Your task to perform on an android device: Clear the shopping cart on walmart.com. Add panasonic triple a to the cart on walmart.com Image 0: 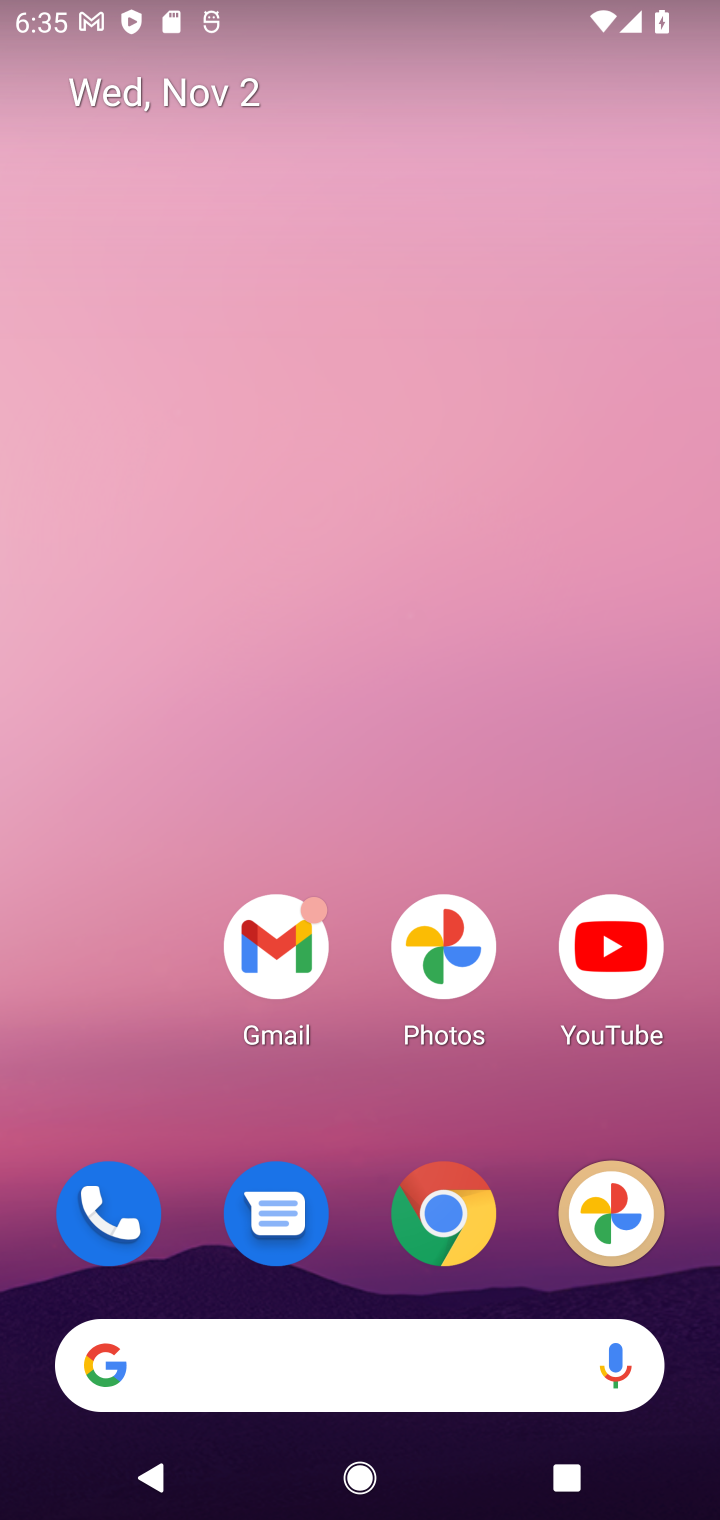
Step 0: click (440, 1213)
Your task to perform on an android device: Clear the shopping cart on walmart.com. Add panasonic triple a to the cart on walmart.com Image 1: 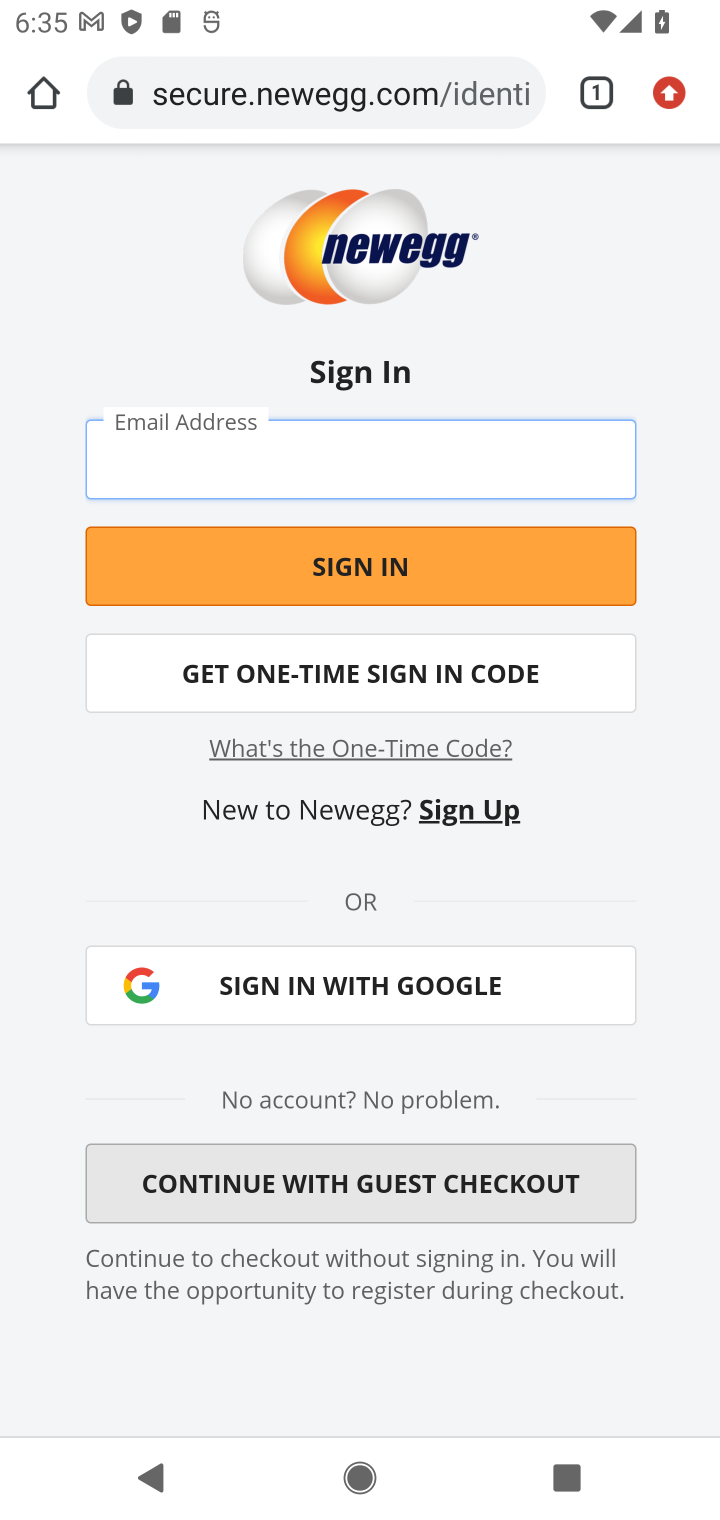
Step 1: click (386, 60)
Your task to perform on an android device: Clear the shopping cart on walmart.com. Add panasonic triple a to the cart on walmart.com Image 2: 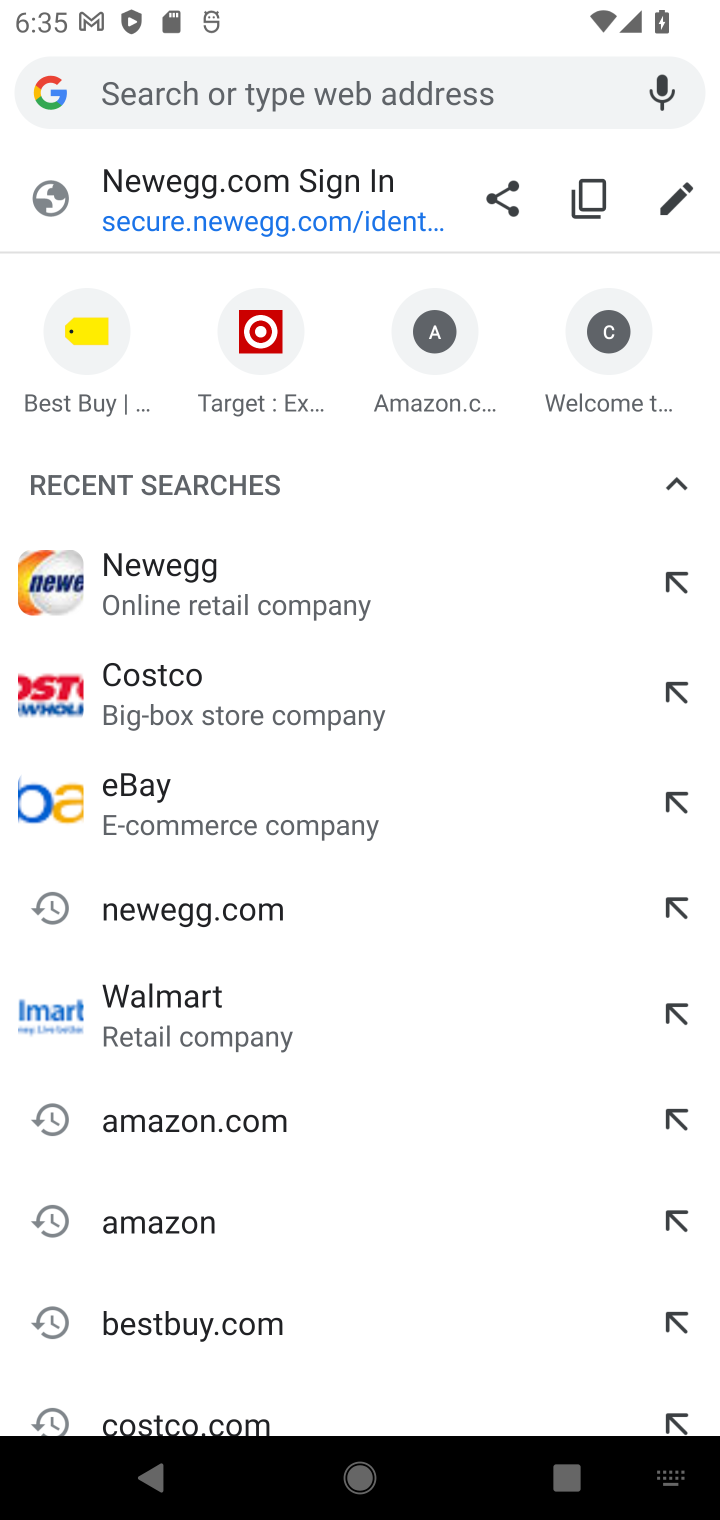
Step 2: type "walmart.com"
Your task to perform on an android device: Clear the shopping cart on walmart.com. Add panasonic triple a to the cart on walmart.com Image 3: 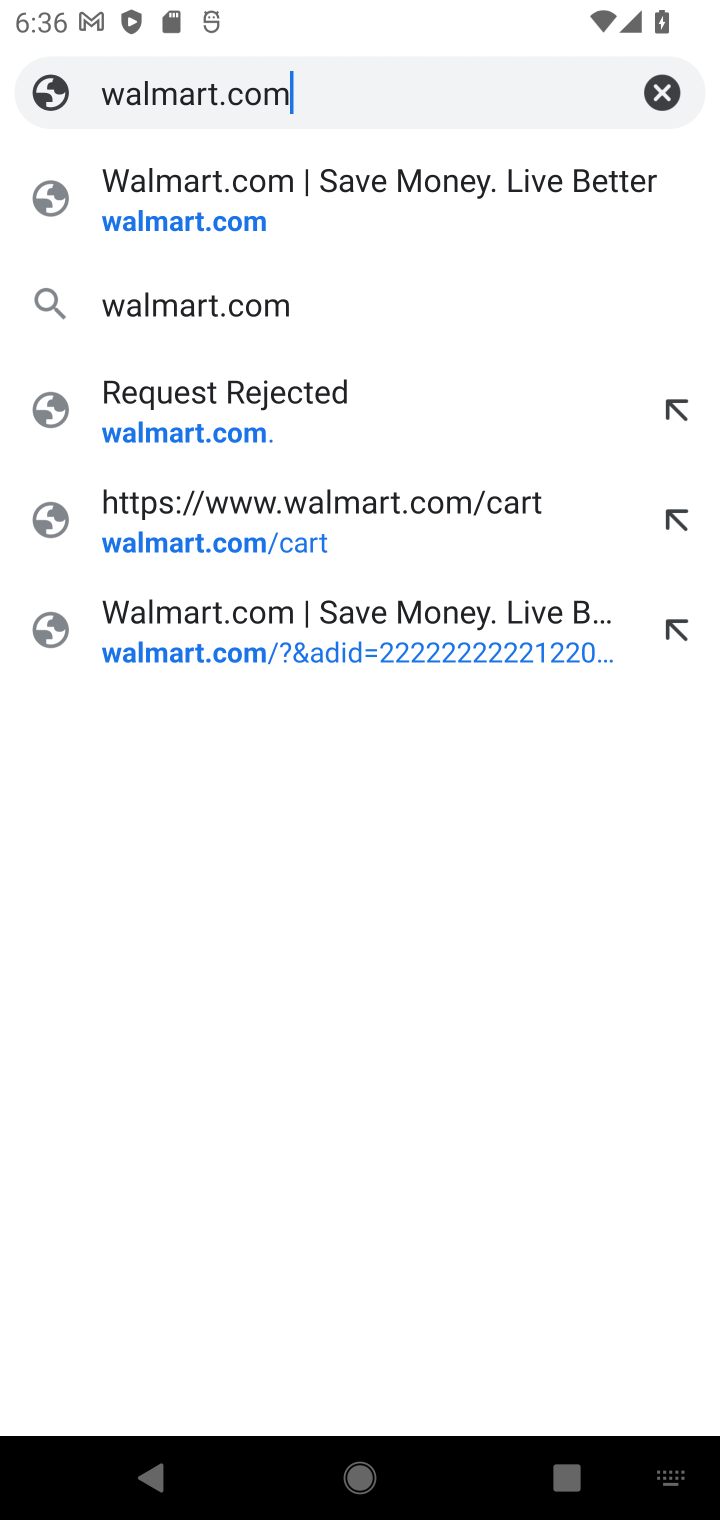
Step 3: click (166, 182)
Your task to perform on an android device: Clear the shopping cart on walmart.com. Add panasonic triple a to the cart on walmart.com Image 4: 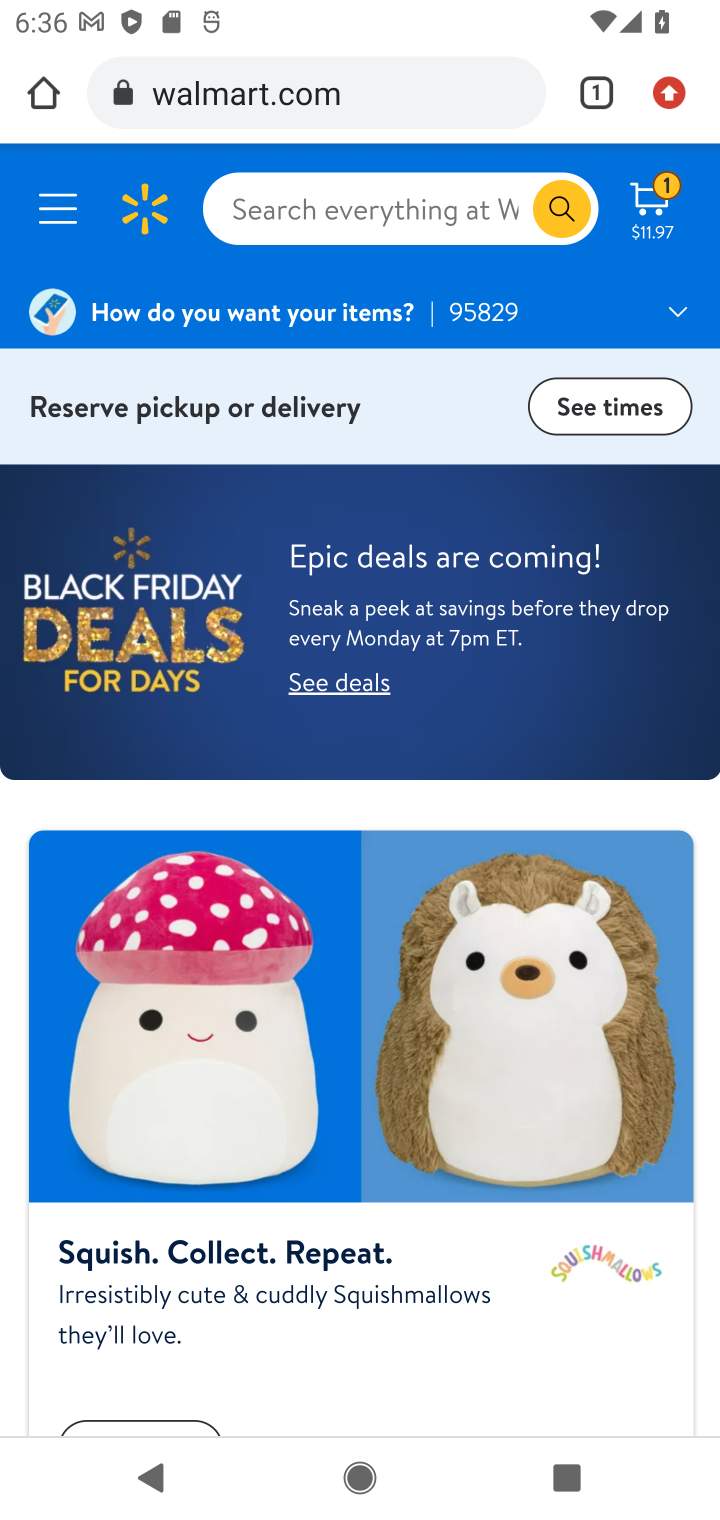
Step 4: click (651, 194)
Your task to perform on an android device: Clear the shopping cart on walmart.com. Add panasonic triple a to the cart on walmart.com Image 5: 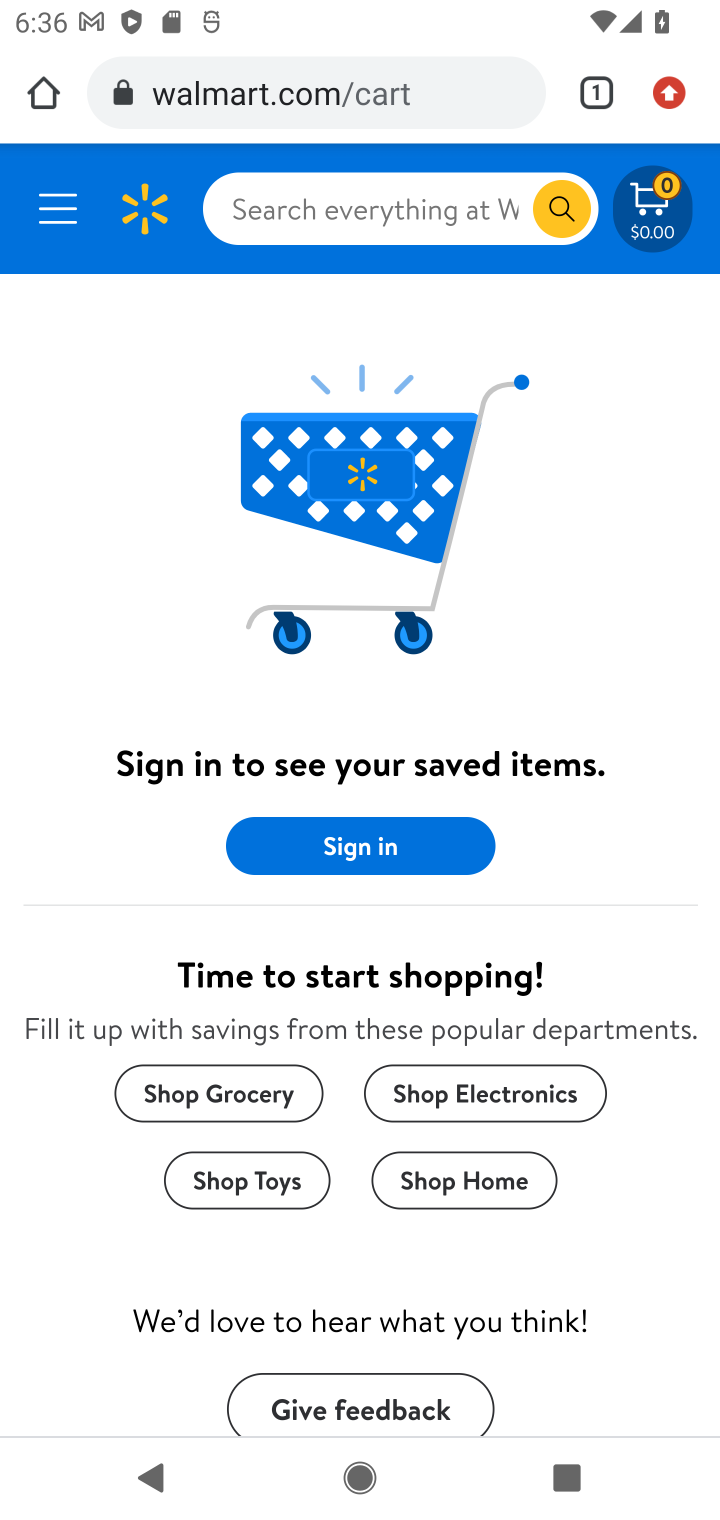
Step 5: click (298, 199)
Your task to perform on an android device: Clear the shopping cart on walmart.com. Add panasonic triple a to the cart on walmart.com Image 6: 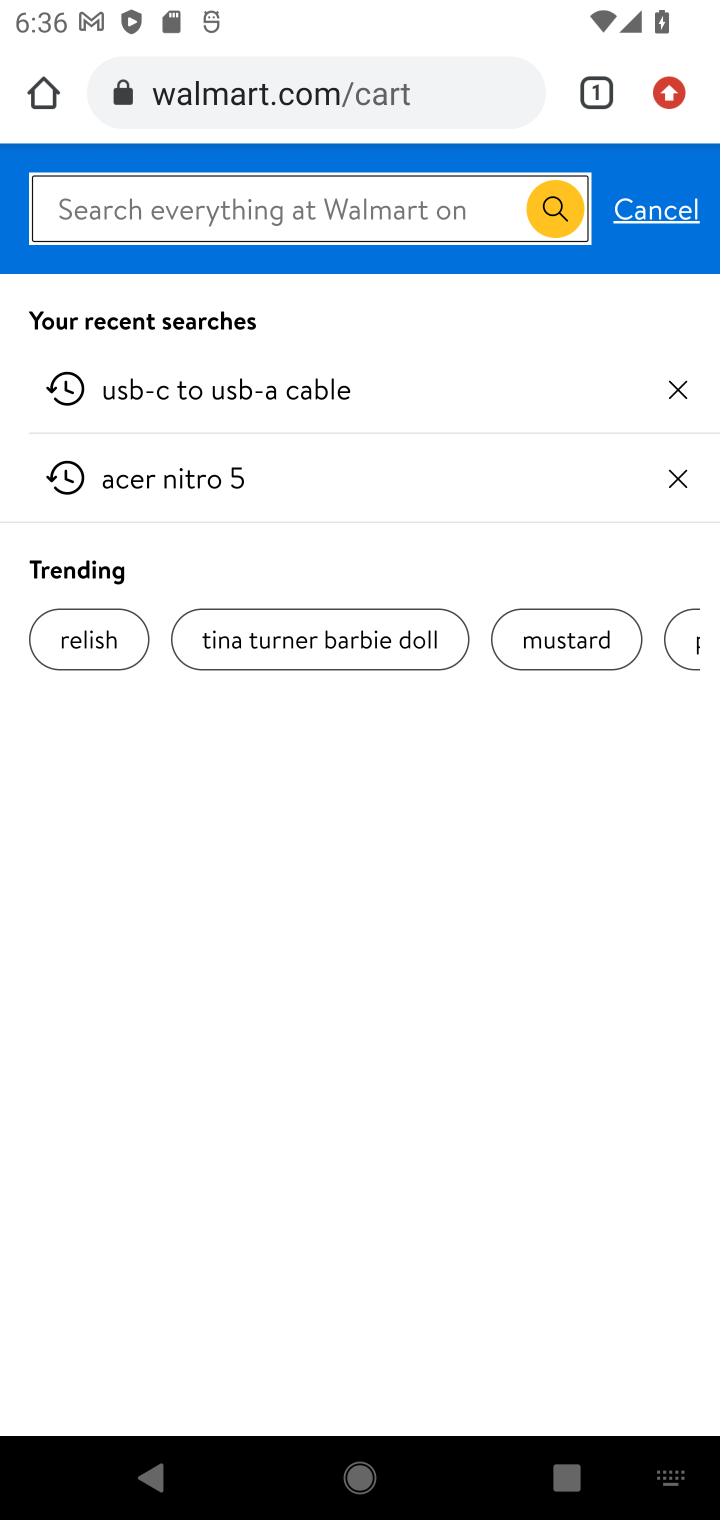
Step 6: type "panasonic triple a"
Your task to perform on an android device: Clear the shopping cart on walmart.com. Add panasonic triple a to the cart on walmart.com Image 7: 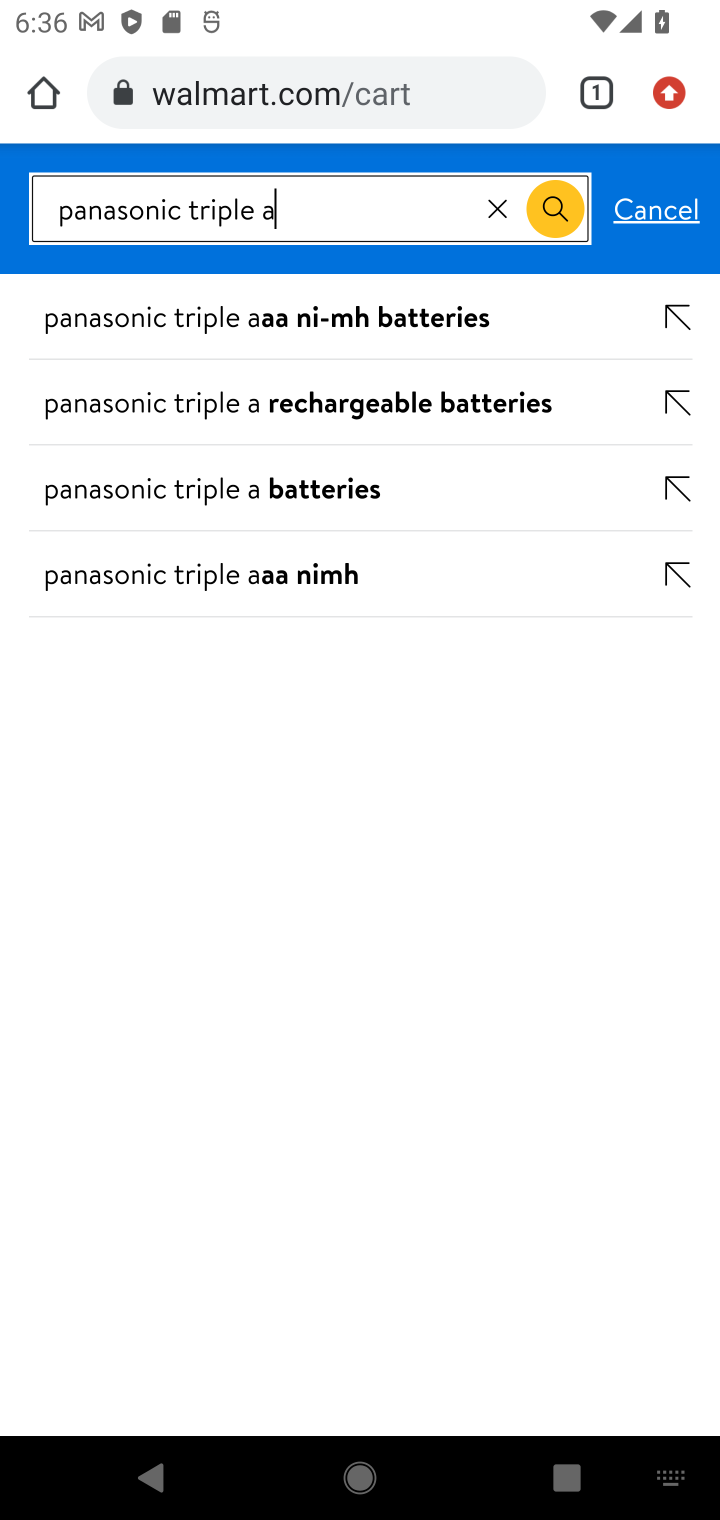
Step 7: click (113, 310)
Your task to perform on an android device: Clear the shopping cart on walmart.com. Add panasonic triple a to the cart on walmart.com Image 8: 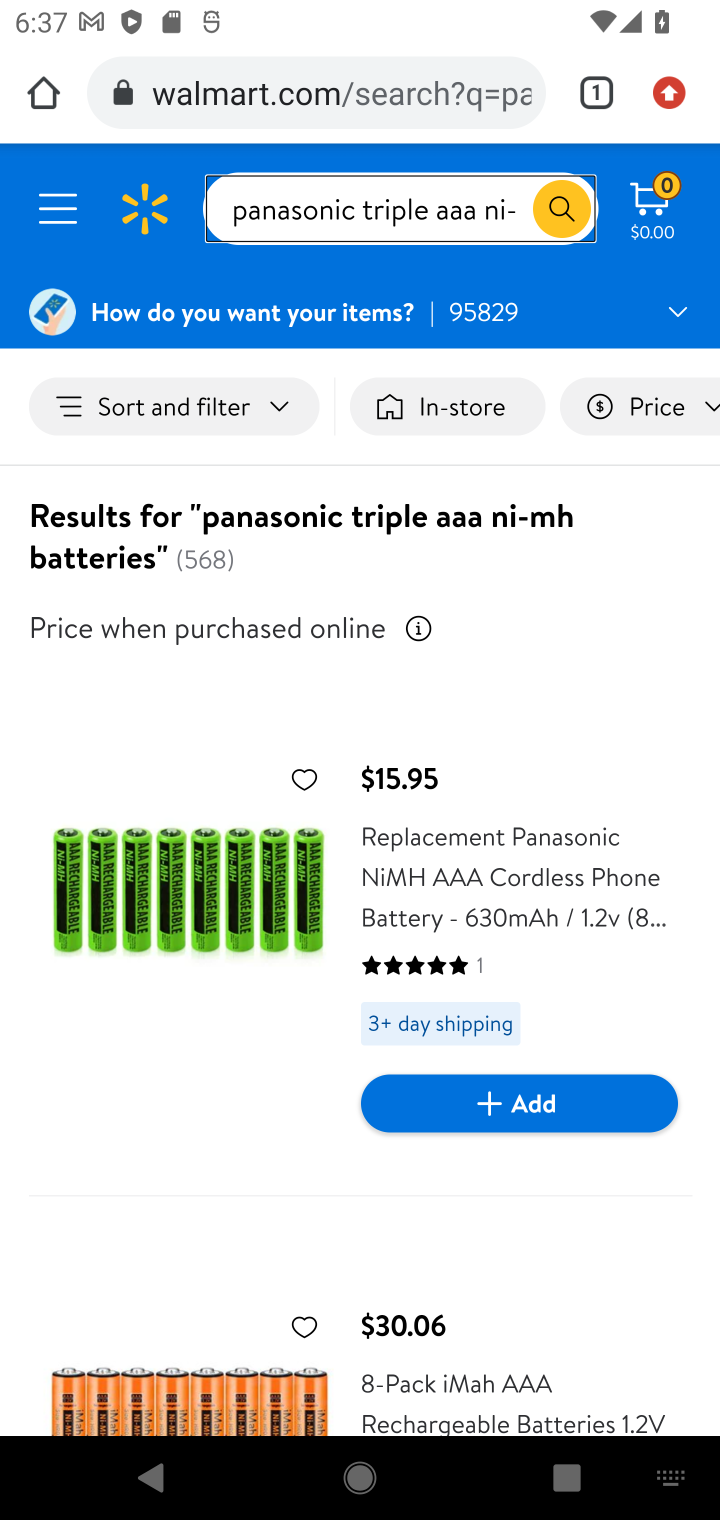
Step 8: click (490, 1105)
Your task to perform on an android device: Clear the shopping cart on walmart.com. Add panasonic triple a to the cart on walmart.com Image 9: 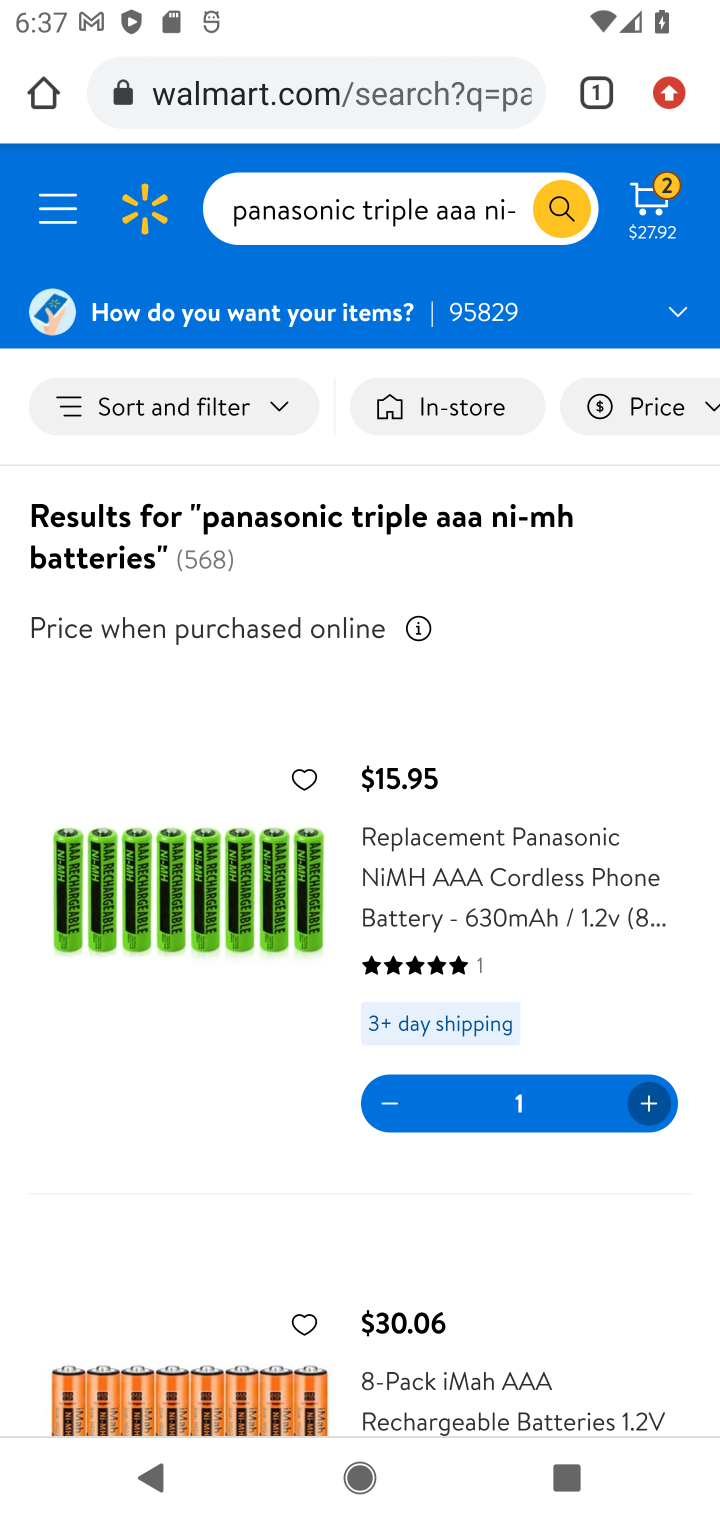
Step 9: task complete